Your task to perform on an android device: turn on location history Image 0: 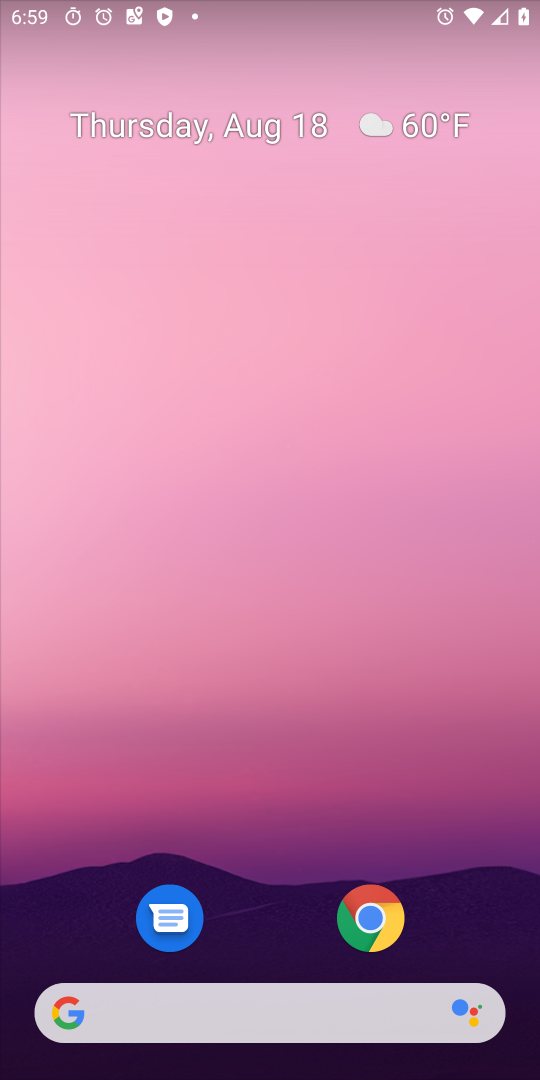
Step 0: press home button
Your task to perform on an android device: turn on location history Image 1: 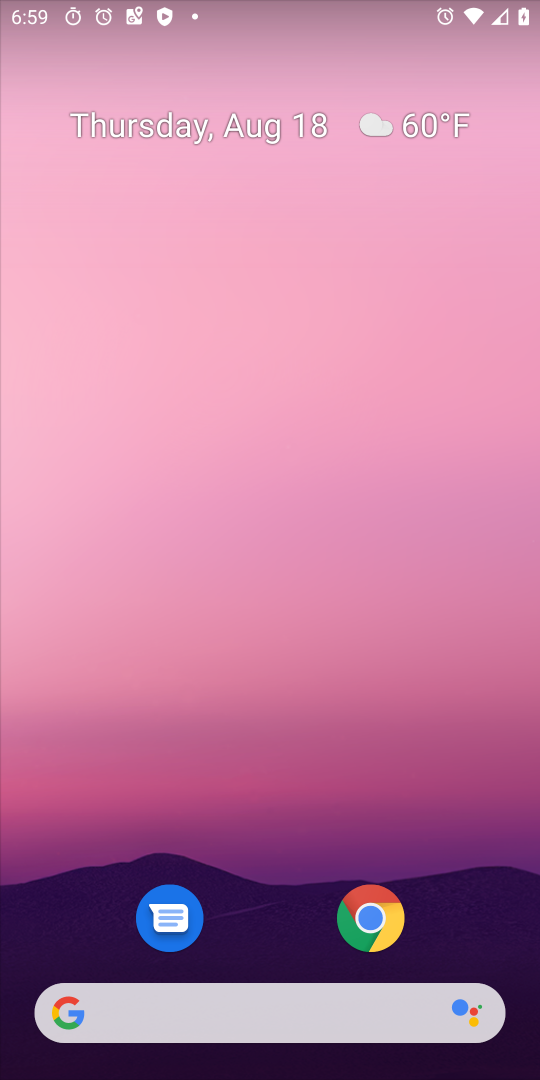
Step 1: drag from (288, 950) to (376, 55)
Your task to perform on an android device: turn on location history Image 2: 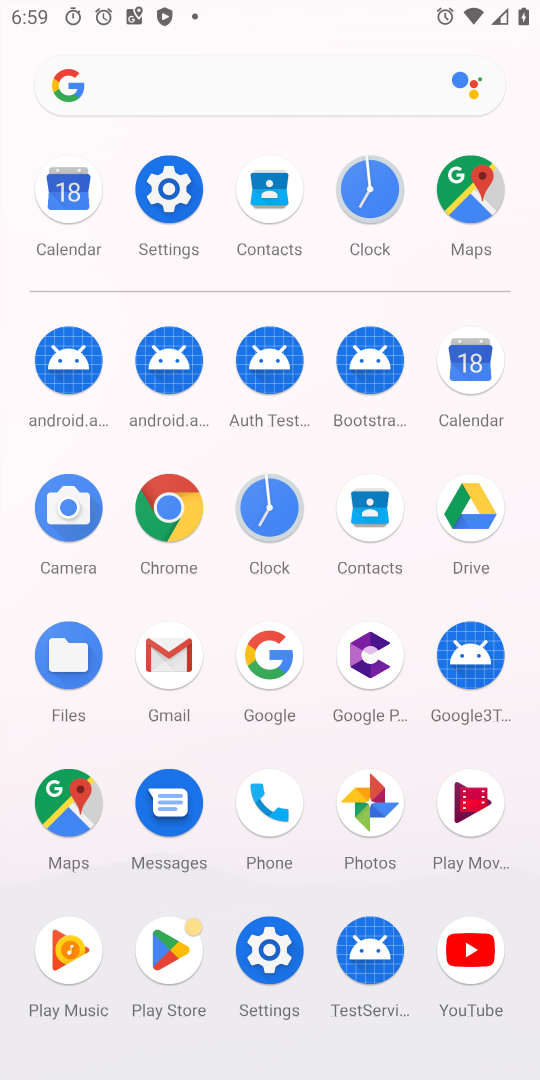
Step 2: click (177, 202)
Your task to perform on an android device: turn on location history Image 3: 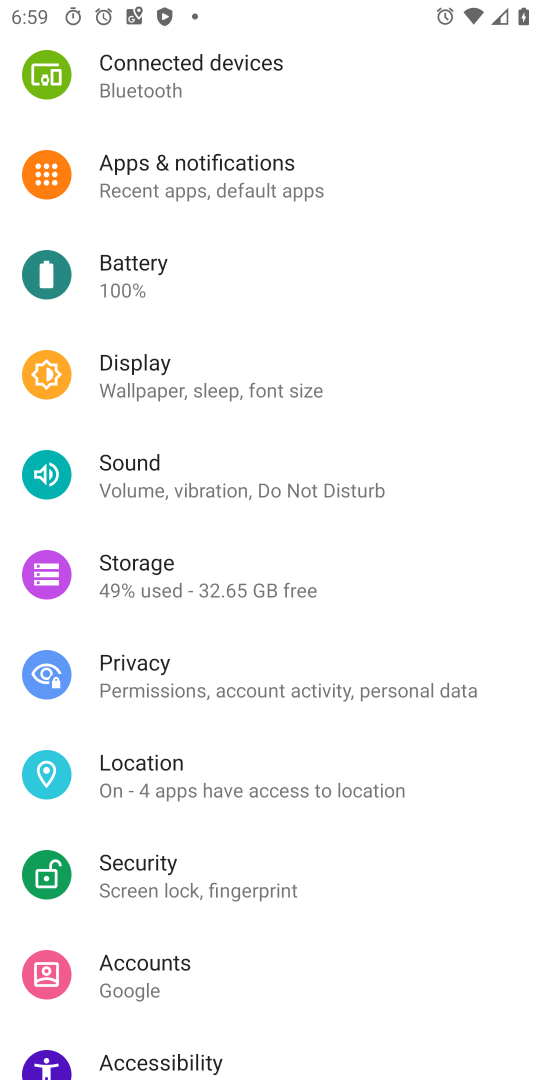
Step 3: click (135, 790)
Your task to perform on an android device: turn on location history Image 4: 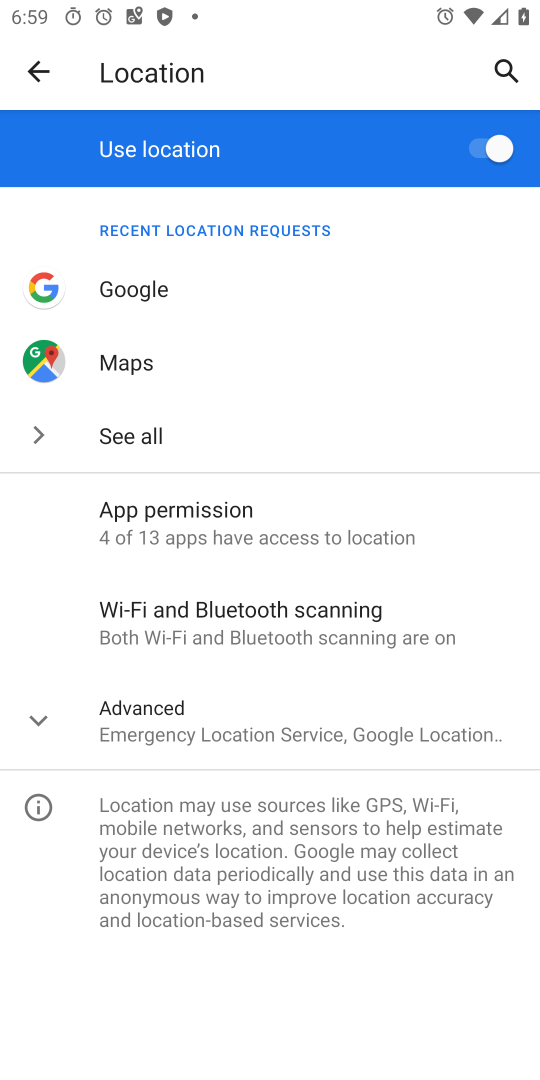
Step 4: click (170, 724)
Your task to perform on an android device: turn on location history Image 5: 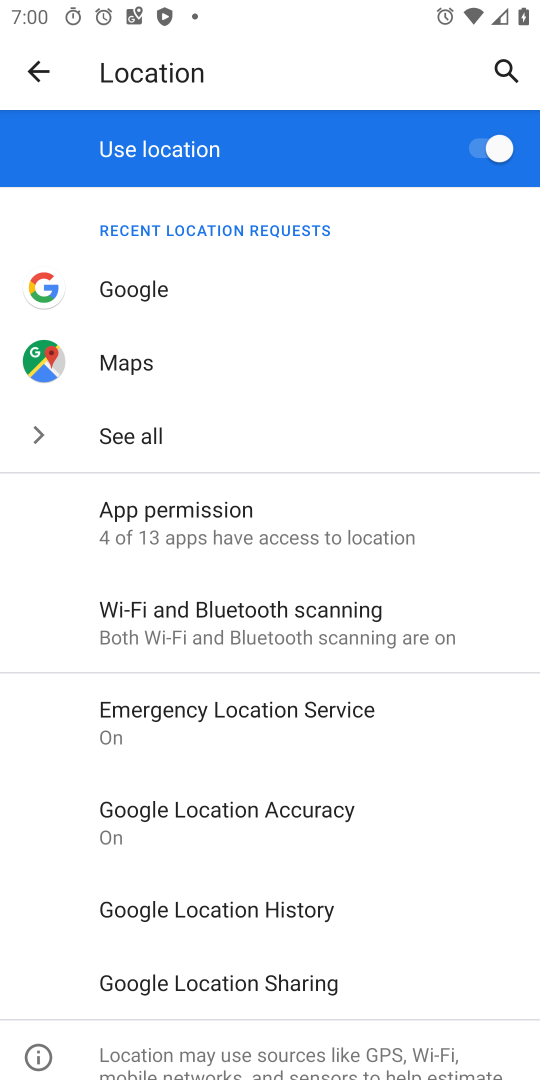
Step 5: drag from (387, 963) to (397, 463)
Your task to perform on an android device: turn on location history Image 6: 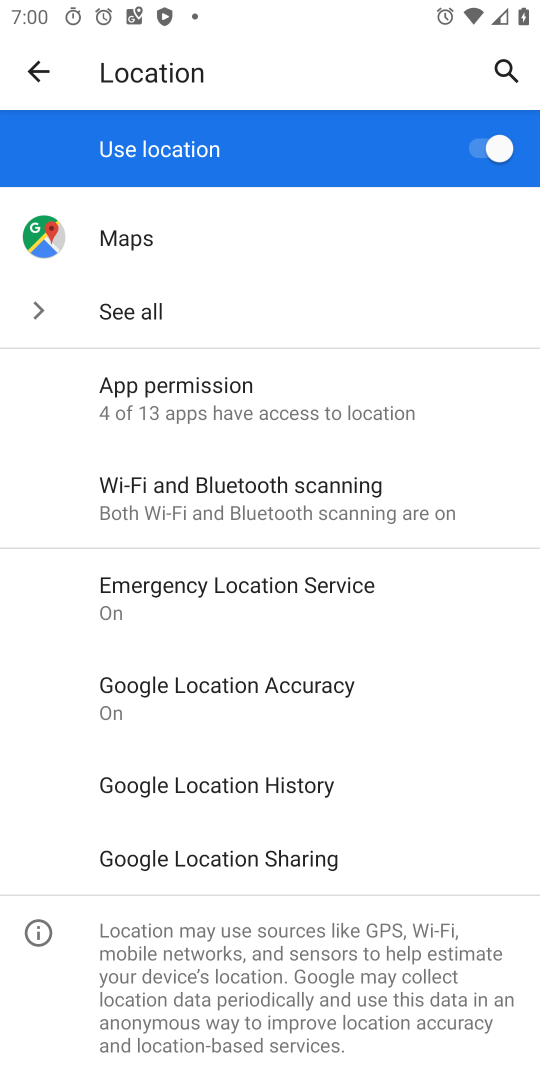
Step 6: click (229, 796)
Your task to perform on an android device: turn on location history Image 7: 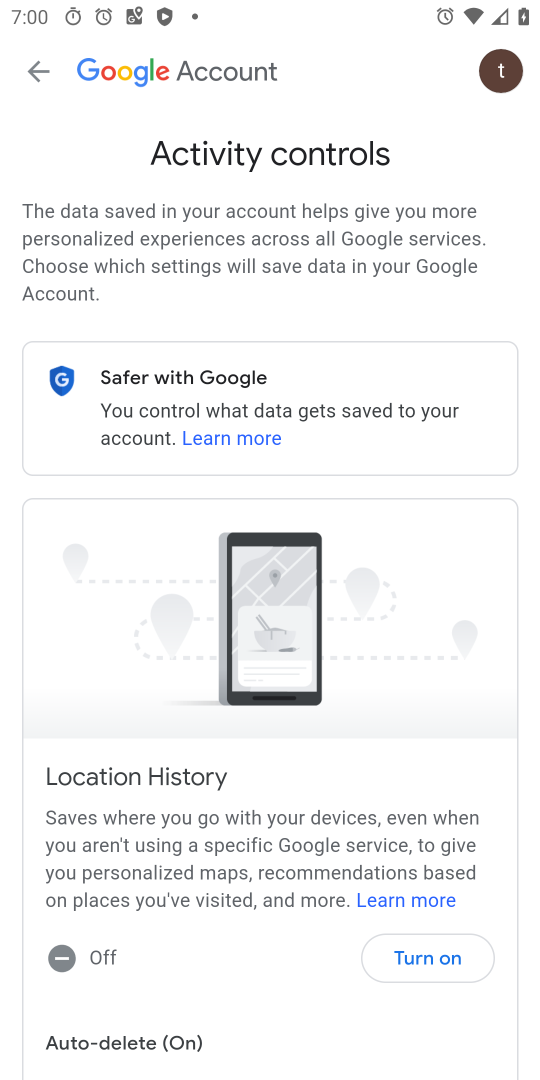
Step 7: click (455, 952)
Your task to perform on an android device: turn on location history Image 8: 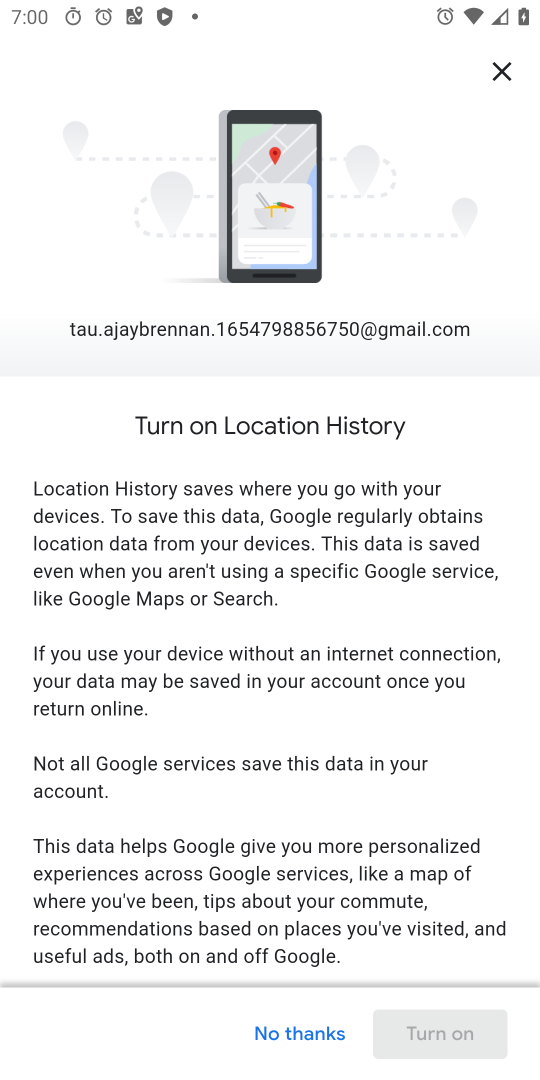
Step 8: drag from (435, 933) to (532, 162)
Your task to perform on an android device: turn on location history Image 9: 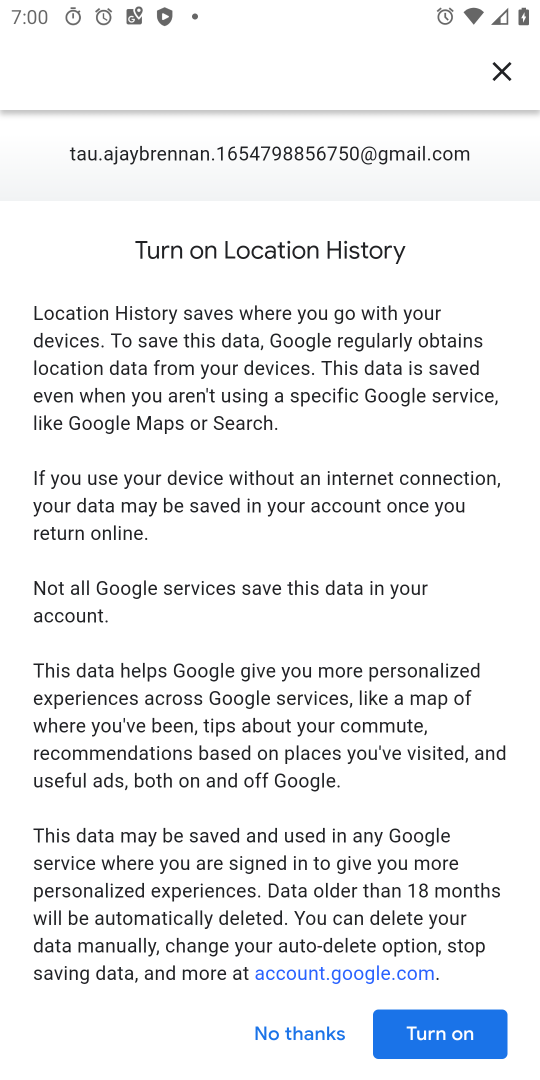
Step 9: click (450, 1054)
Your task to perform on an android device: turn on location history Image 10: 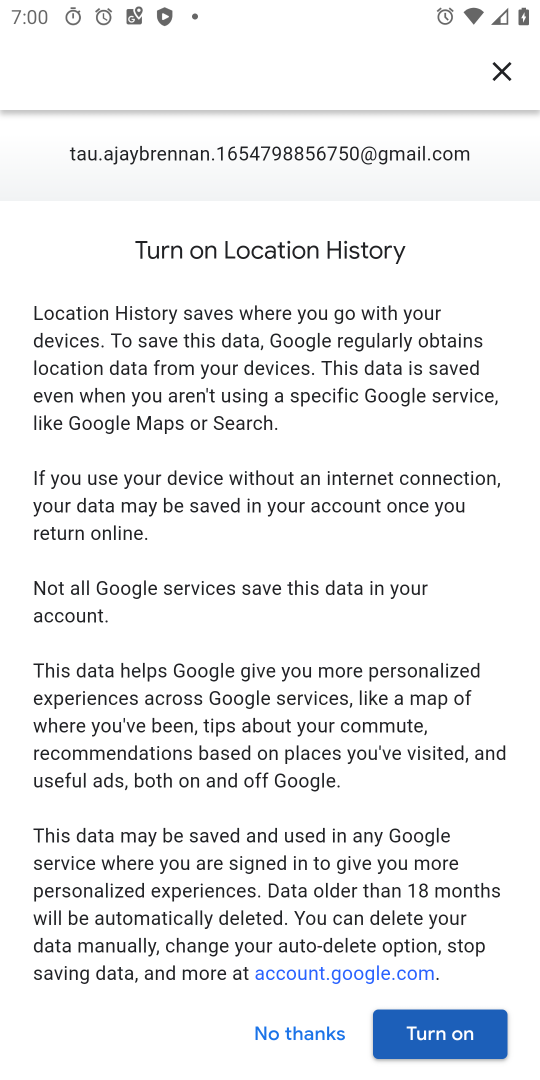
Step 10: click (419, 1047)
Your task to perform on an android device: turn on location history Image 11: 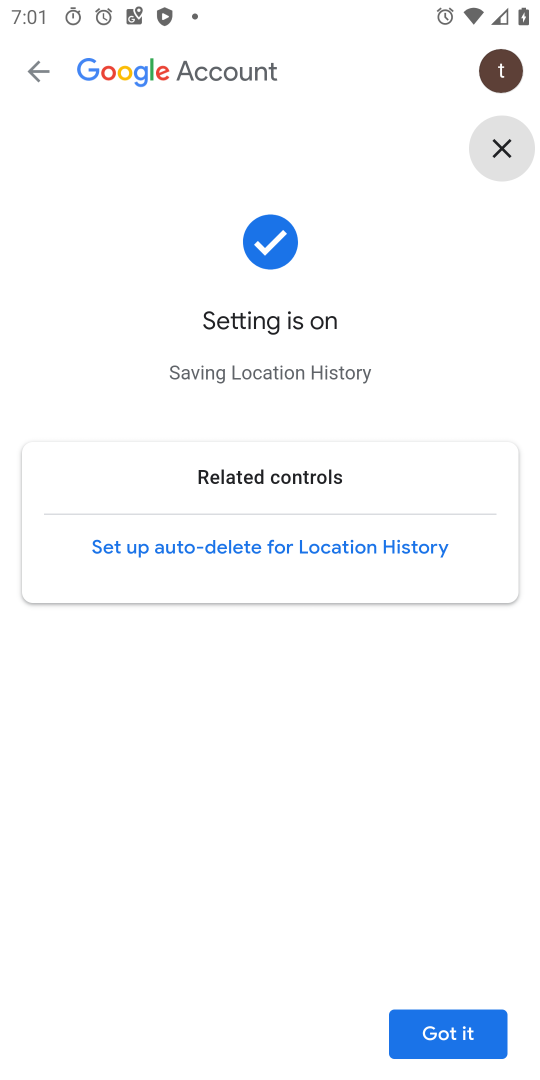
Step 11: click (419, 1049)
Your task to perform on an android device: turn on location history Image 12: 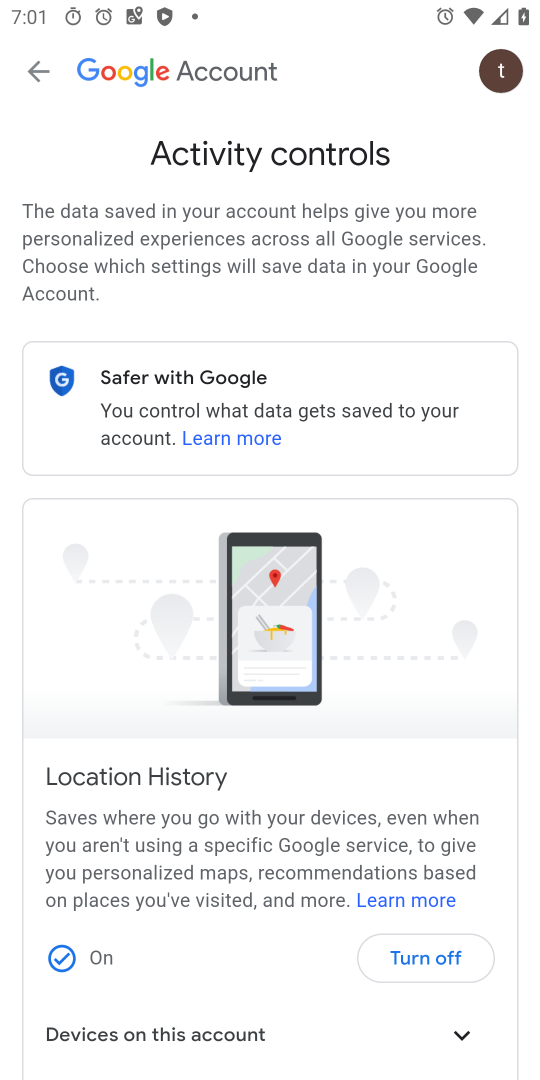
Step 12: task complete